Your task to perform on an android device: Open settings Image 0: 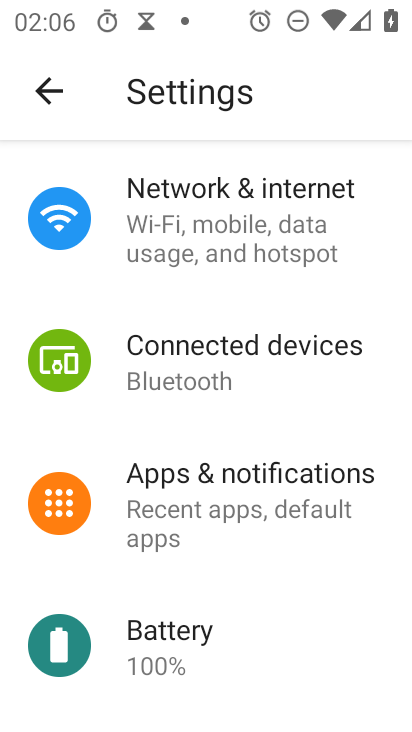
Step 0: task complete